Your task to perform on an android device: turn pop-ups off in chrome Image 0: 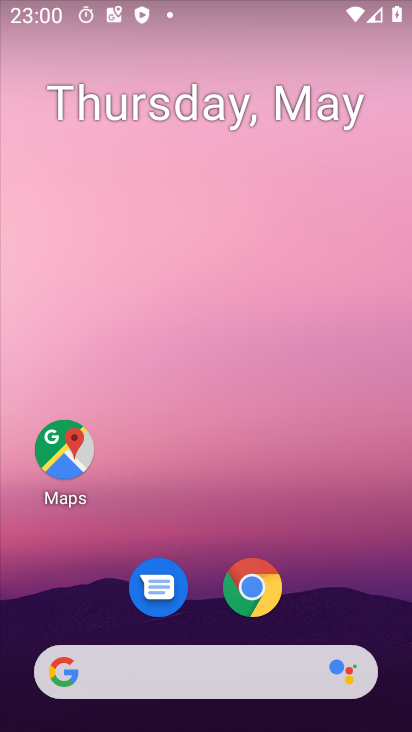
Step 0: click (258, 598)
Your task to perform on an android device: turn pop-ups off in chrome Image 1: 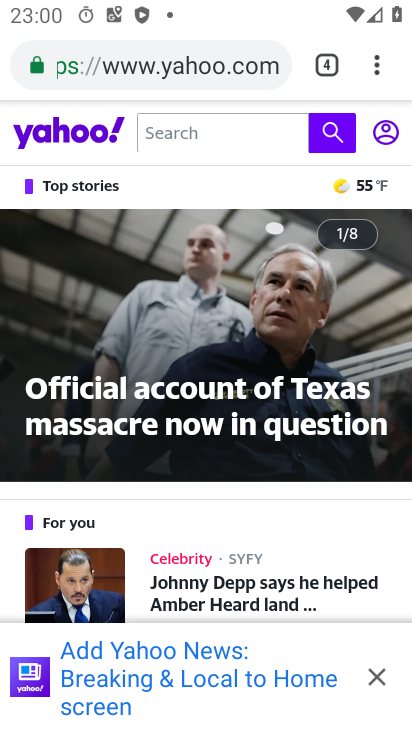
Step 1: click (376, 67)
Your task to perform on an android device: turn pop-ups off in chrome Image 2: 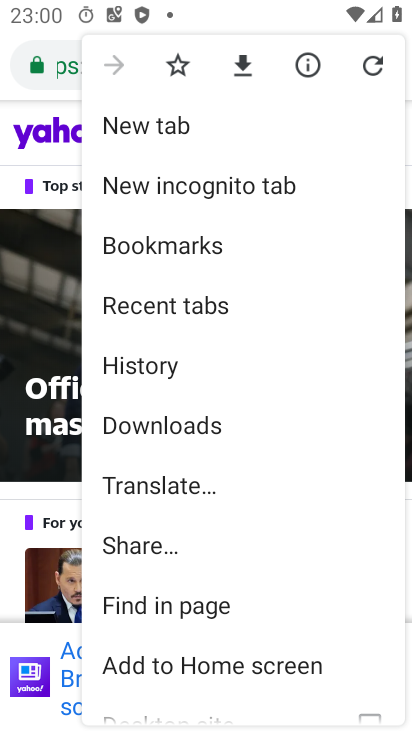
Step 2: drag from (254, 358) to (252, 154)
Your task to perform on an android device: turn pop-ups off in chrome Image 3: 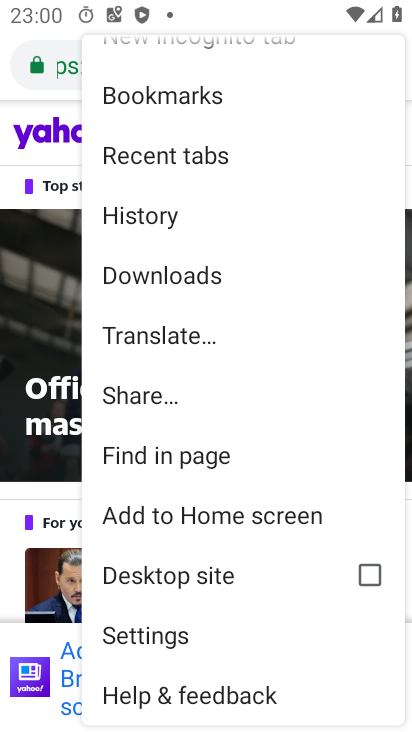
Step 3: click (313, 311)
Your task to perform on an android device: turn pop-ups off in chrome Image 4: 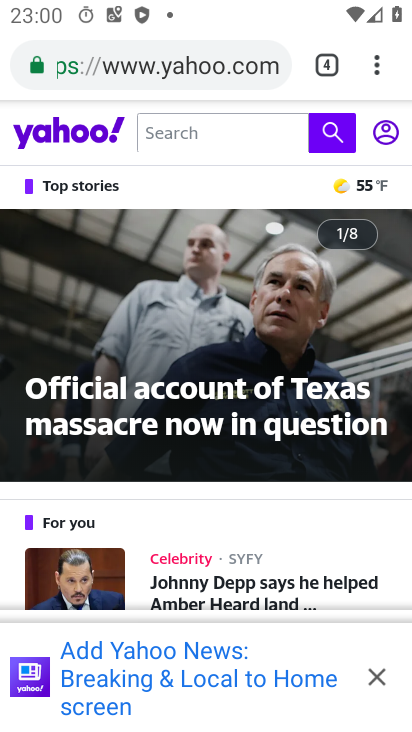
Step 4: click (377, 69)
Your task to perform on an android device: turn pop-ups off in chrome Image 5: 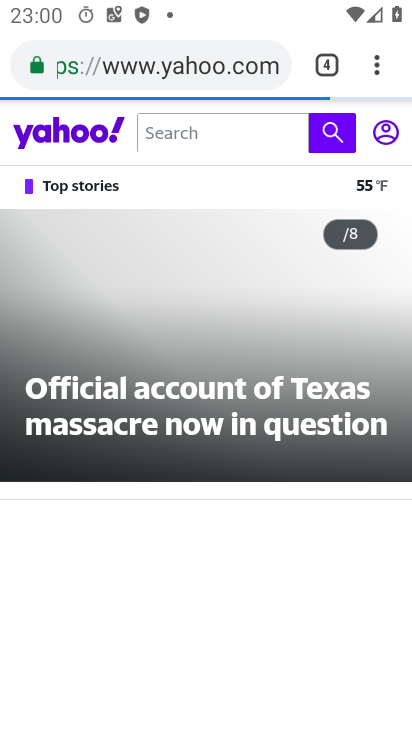
Step 5: click (374, 67)
Your task to perform on an android device: turn pop-ups off in chrome Image 6: 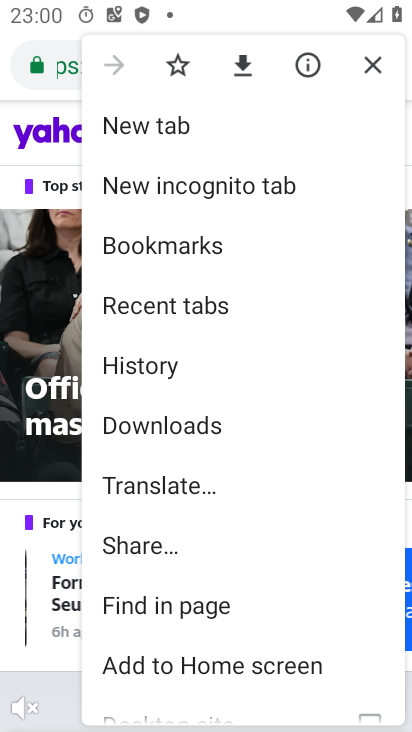
Step 6: drag from (296, 568) to (307, 279)
Your task to perform on an android device: turn pop-ups off in chrome Image 7: 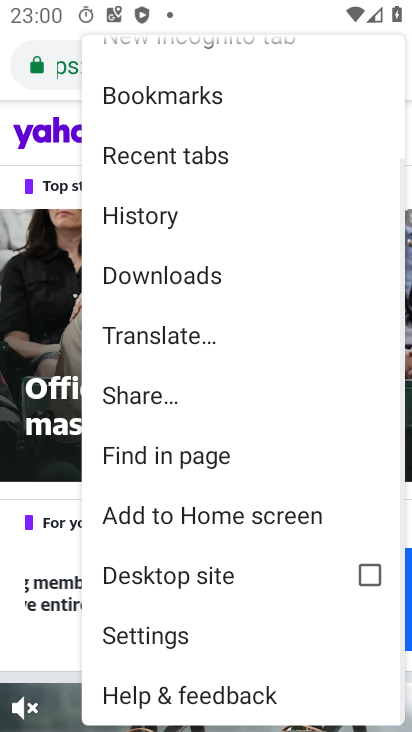
Step 7: click (148, 631)
Your task to perform on an android device: turn pop-ups off in chrome Image 8: 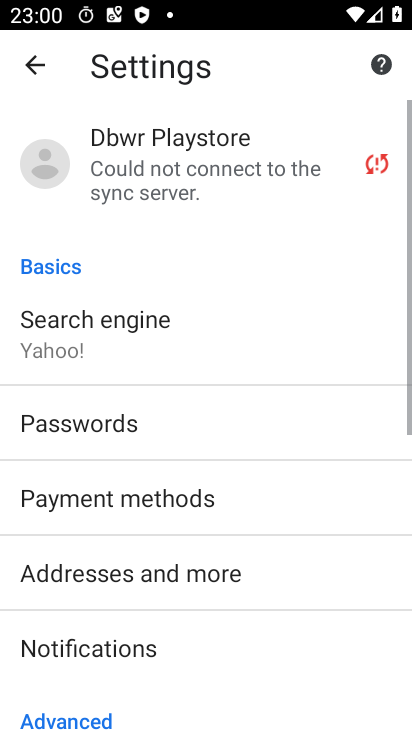
Step 8: drag from (175, 510) to (206, 222)
Your task to perform on an android device: turn pop-ups off in chrome Image 9: 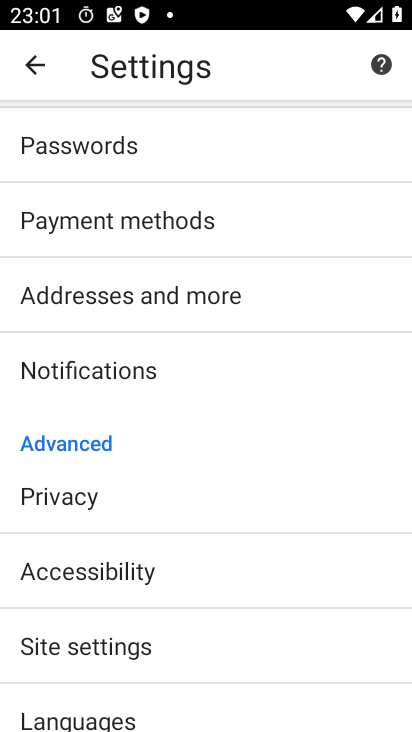
Step 9: drag from (205, 579) to (208, 236)
Your task to perform on an android device: turn pop-ups off in chrome Image 10: 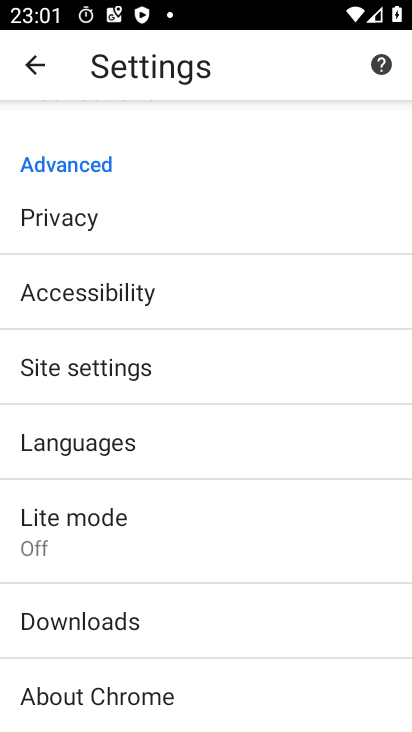
Step 10: click (89, 367)
Your task to perform on an android device: turn pop-ups off in chrome Image 11: 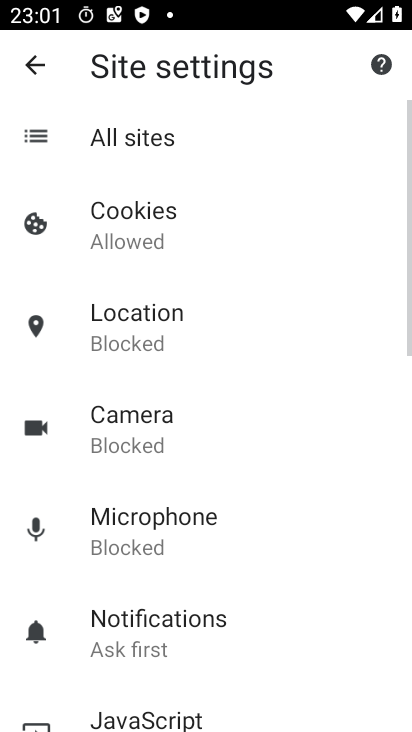
Step 11: drag from (286, 616) to (285, 278)
Your task to perform on an android device: turn pop-ups off in chrome Image 12: 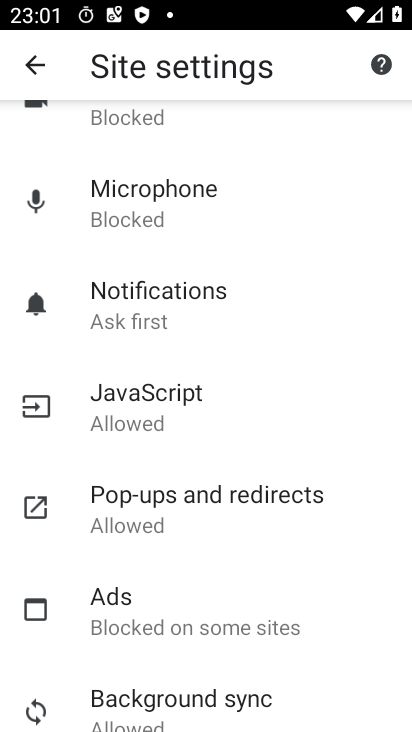
Step 12: click (137, 501)
Your task to perform on an android device: turn pop-ups off in chrome Image 13: 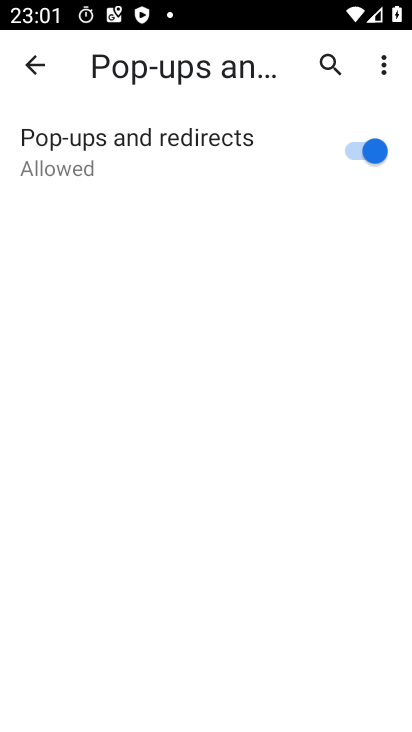
Step 13: click (369, 152)
Your task to perform on an android device: turn pop-ups off in chrome Image 14: 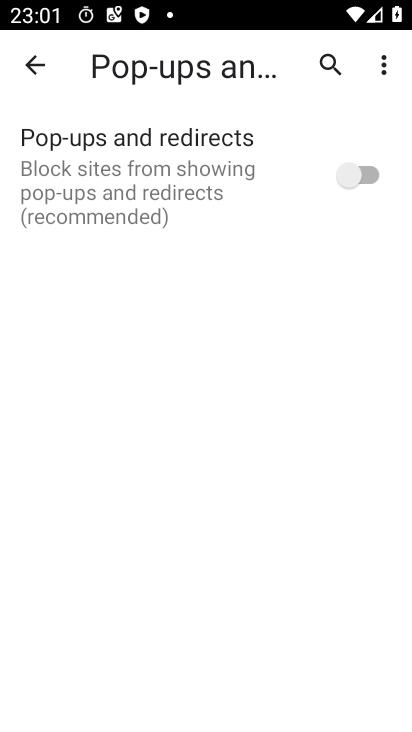
Step 14: task complete